Your task to perform on an android device: visit the assistant section in the google photos Image 0: 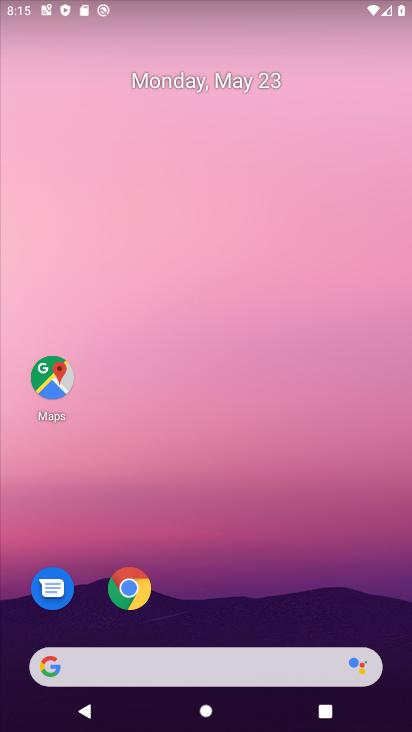
Step 0: drag from (395, 679) to (323, 241)
Your task to perform on an android device: visit the assistant section in the google photos Image 1: 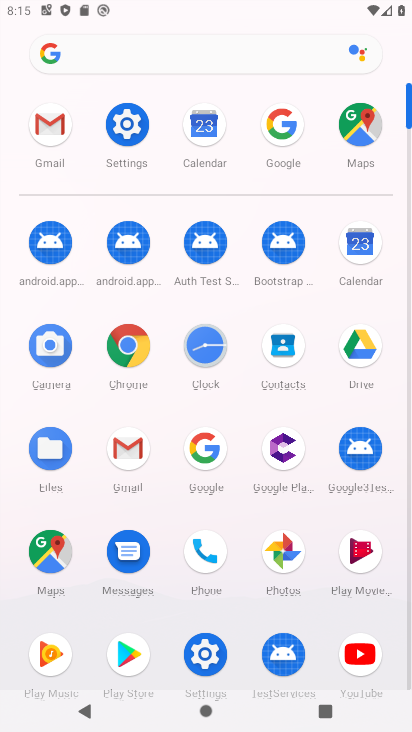
Step 1: click (275, 557)
Your task to perform on an android device: visit the assistant section in the google photos Image 2: 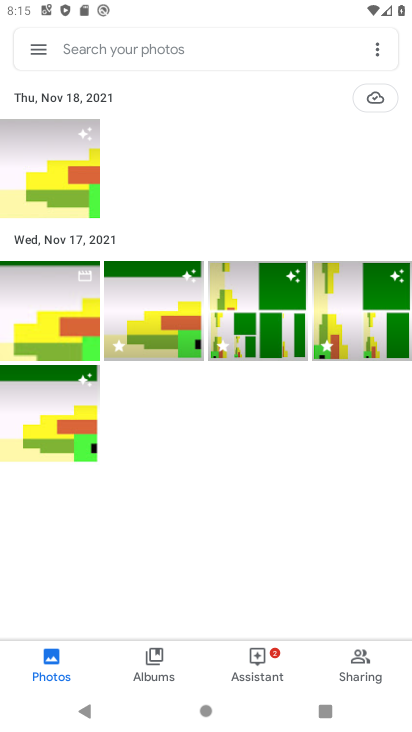
Step 2: click (270, 666)
Your task to perform on an android device: visit the assistant section in the google photos Image 3: 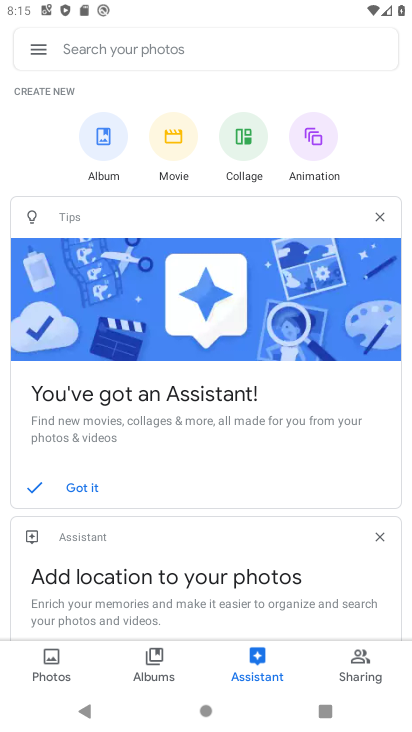
Step 3: task complete